Your task to perform on an android device: Clear the shopping cart on walmart.com. Search for bose soundlink on walmart.com, select the first entry, and add it to the cart. Image 0: 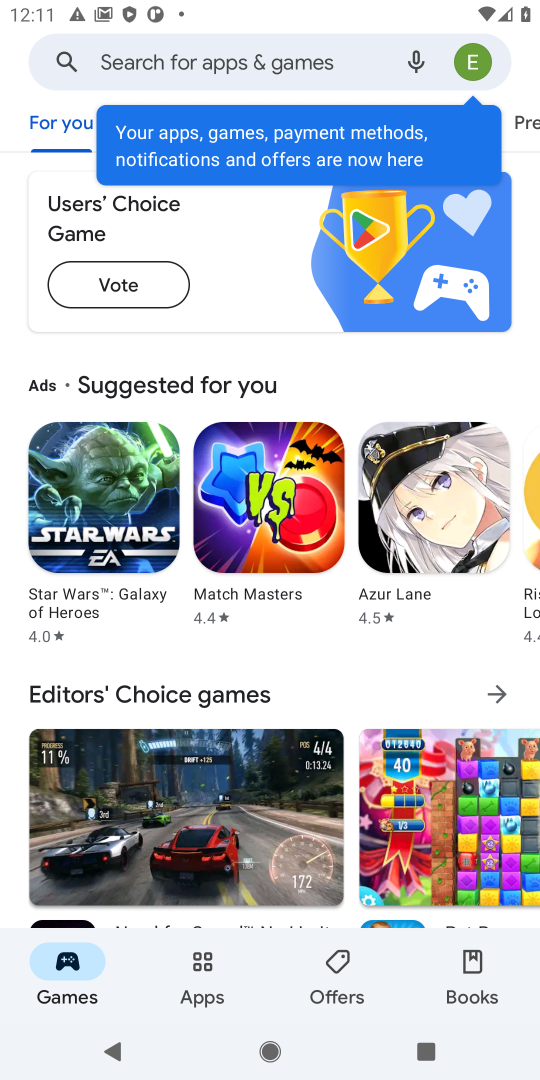
Step 0: press home button
Your task to perform on an android device: Clear the shopping cart on walmart.com. Search for bose soundlink on walmart.com, select the first entry, and add it to the cart. Image 1: 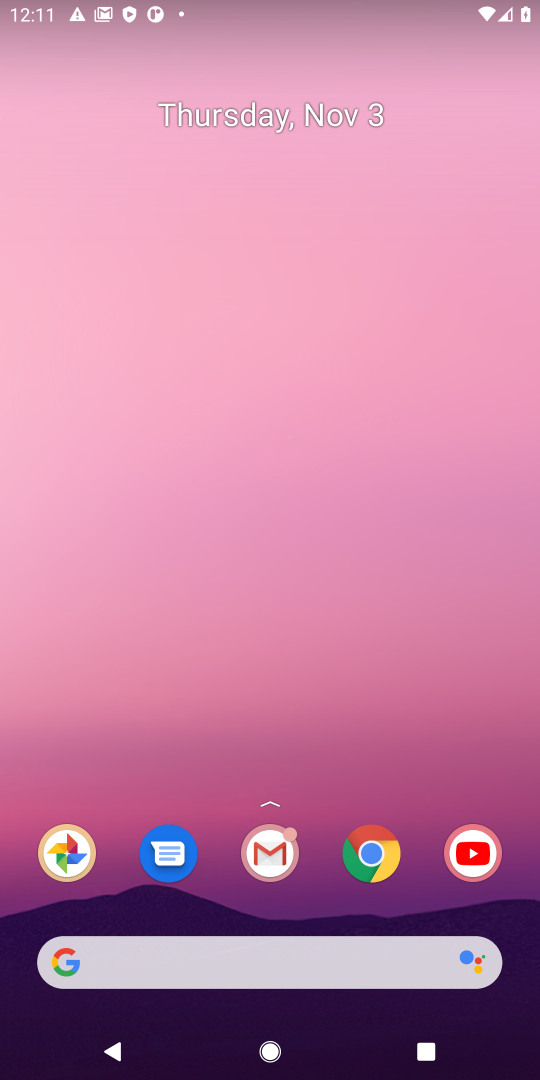
Step 1: click (365, 852)
Your task to perform on an android device: Clear the shopping cart on walmart.com. Search for bose soundlink on walmart.com, select the first entry, and add it to the cart. Image 2: 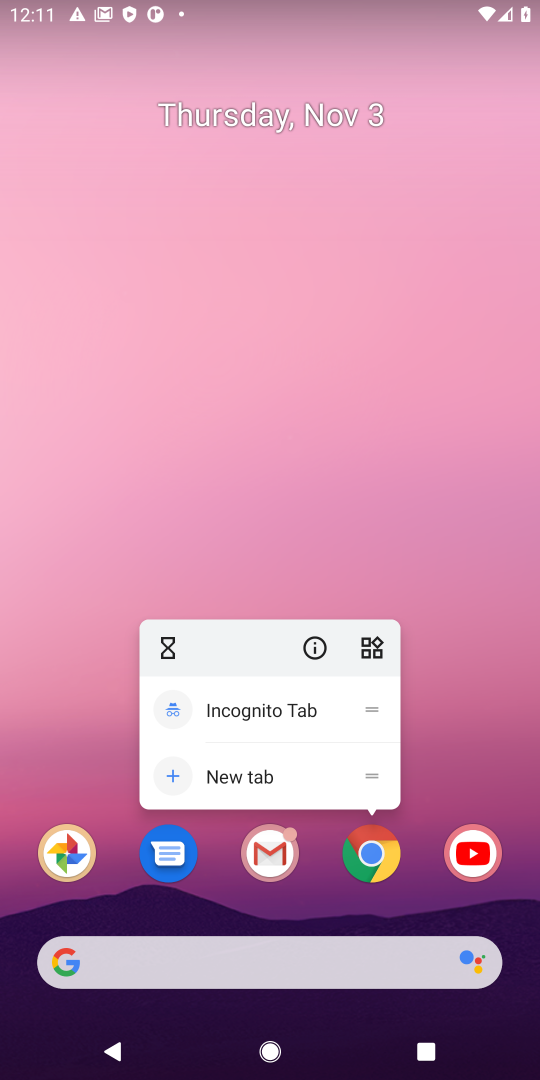
Step 2: click (368, 864)
Your task to perform on an android device: Clear the shopping cart on walmart.com. Search for bose soundlink on walmart.com, select the first entry, and add it to the cart. Image 3: 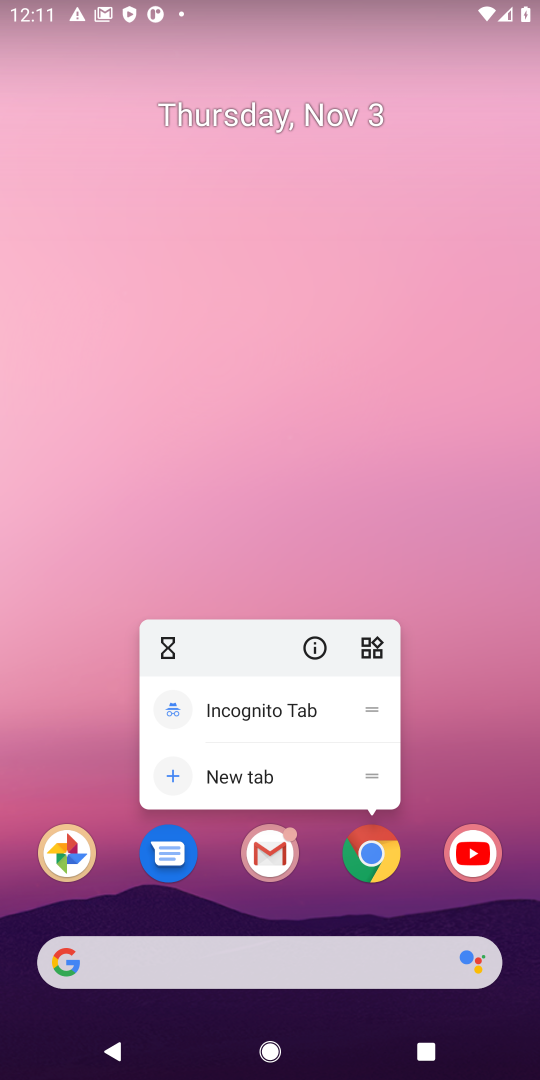
Step 3: click (375, 855)
Your task to perform on an android device: Clear the shopping cart on walmart.com. Search for bose soundlink on walmart.com, select the first entry, and add it to the cart. Image 4: 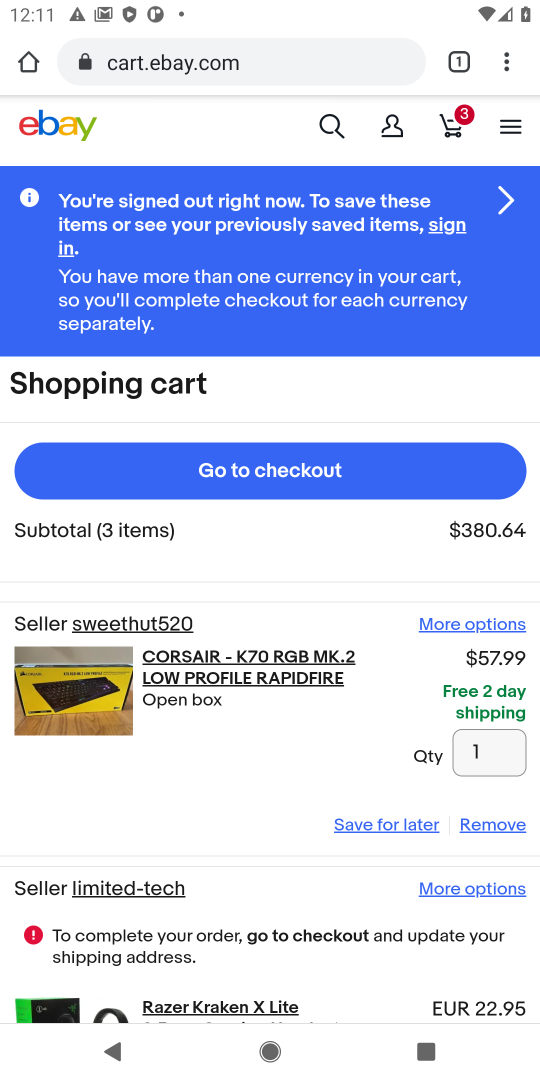
Step 4: click (227, 66)
Your task to perform on an android device: Clear the shopping cart on walmart.com. Search for bose soundlink on walmart.com, select the first entry, and add it to the cart. Image 5: 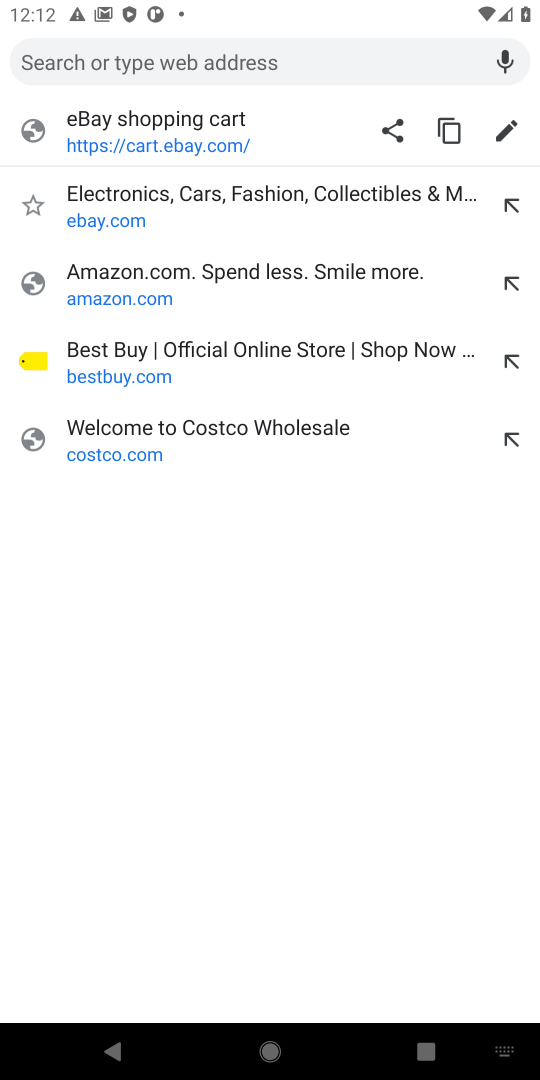
Step 5: type "walmart.com"
Your task to perform on an android device: Clear the shopping cart on walmart.com. Search for bose soundlink on walmart.com, select the first entry, and add it to the cart. Image 6: 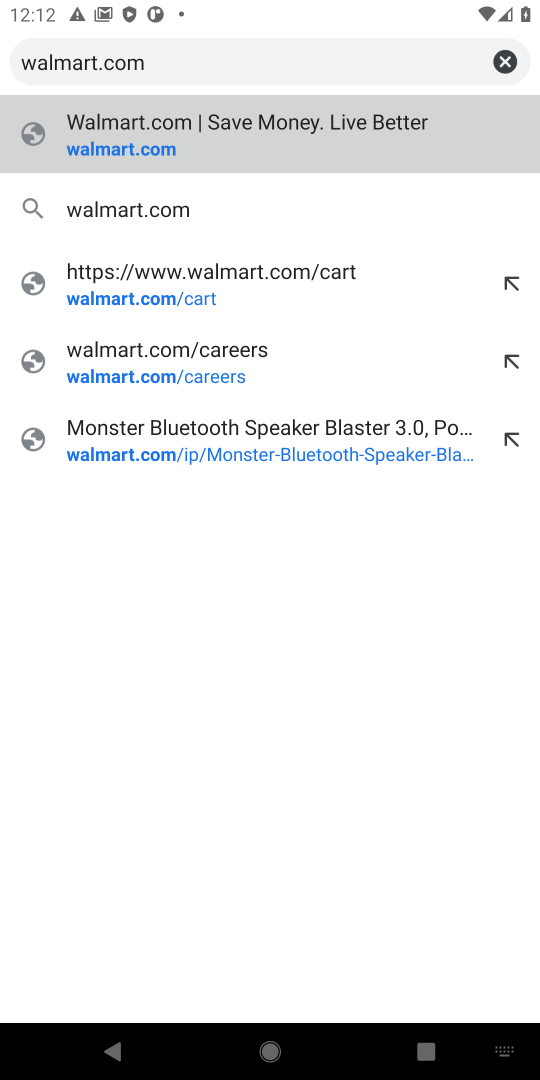
Step 6: press enter
Your task to perform on an android device: Clear the shopping cart on walmart.com. Search for bose soundlink on walmart.com, select the first entry, and add it to the cart. Image 7: 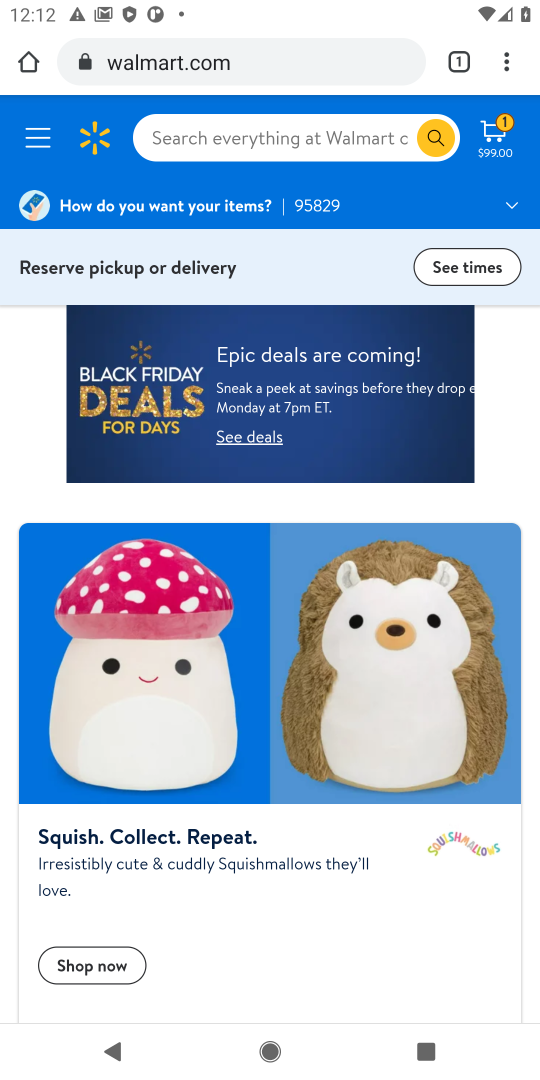
Step 7: click (235, 131)
Your task to perform on an android device: Clear the shopping cart on walmart.com. Search for bose soundlink on walmart.com, select the first entry, and add it to the cart. Image 8: 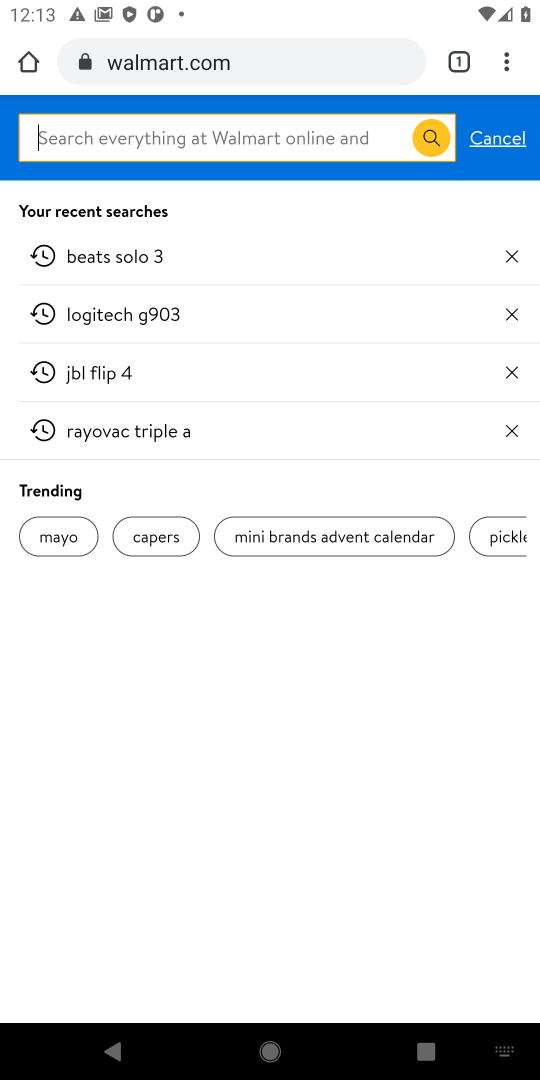
Step 8: type "bose soundlink "
Your task to perform on an android device: Clear the shopping cart on walmart.com. Search for bose soundlink on walmart.com, select the first entry, and add it to the cart. Image 9: 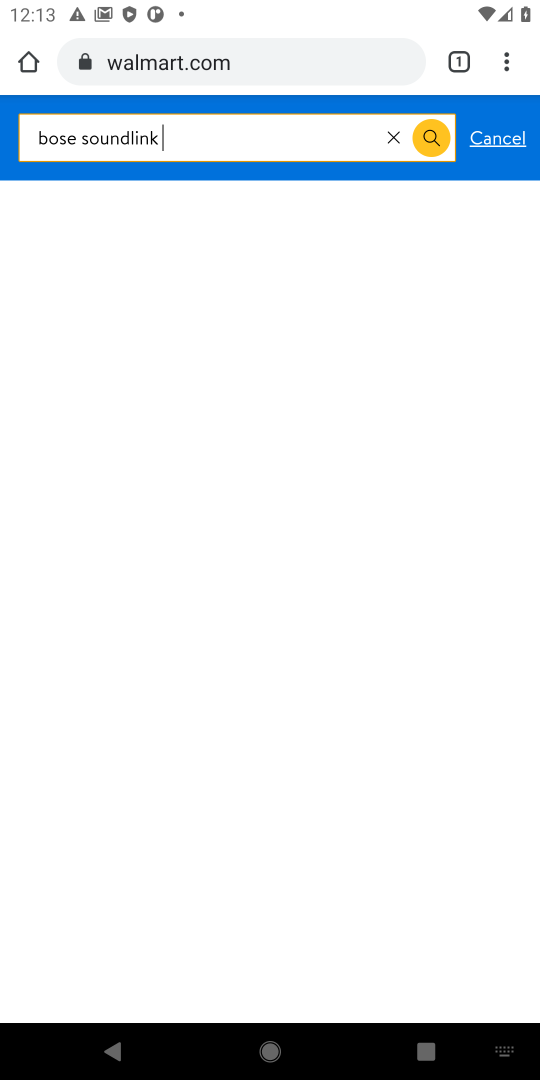
Step 9: press enter
Your task to perform on an android device: Clear the shopping cart on walmart.com. Search for bose soundlink on walmart.com, select the first entry, and add it to the cart. Image 10: 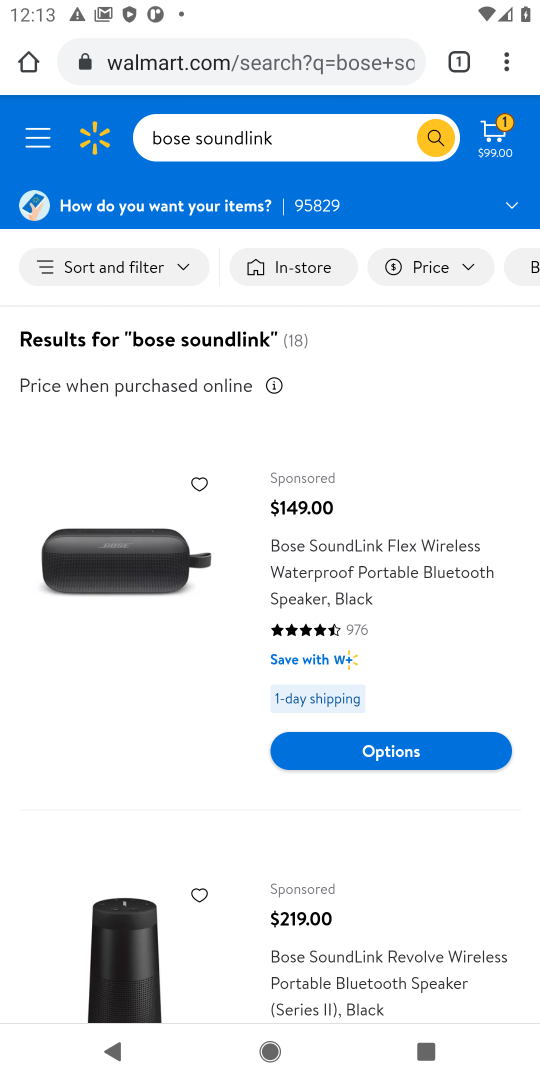
Step 10: click (311, 570)
Your task to perform on an android device: Clear the shopping cart on walmart.com. Search for bose soundlink on walmart.com, select the first entry, and add it to the cart. Image 11: 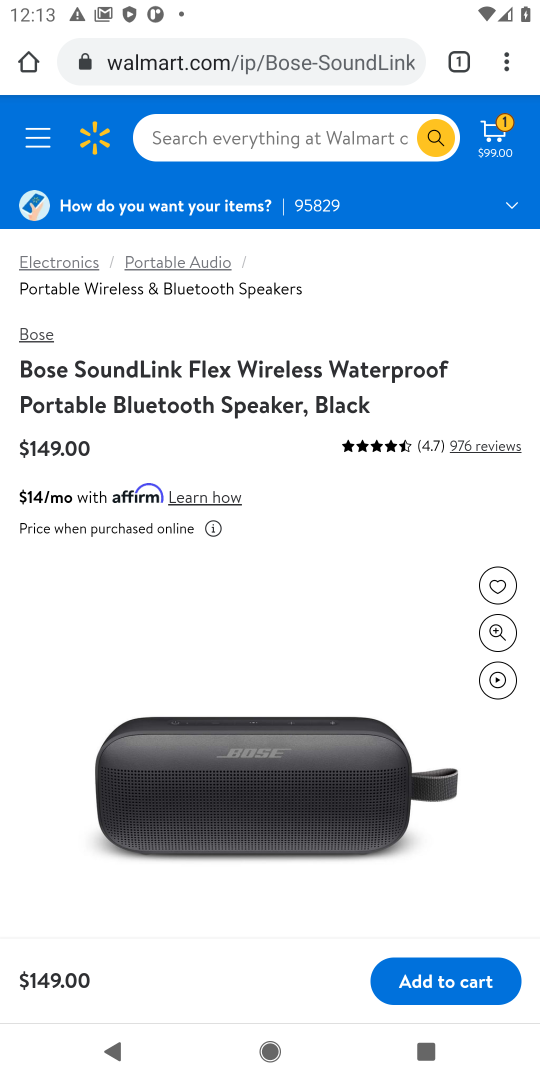
Step 11: drag from (369, 825) to (537, 410)
Your task to perform on an android device: Clear the shopping cart on walmart.com. Search for bose soundlink on walmart.com, select the first entry, and add it to the cart. Image 12: 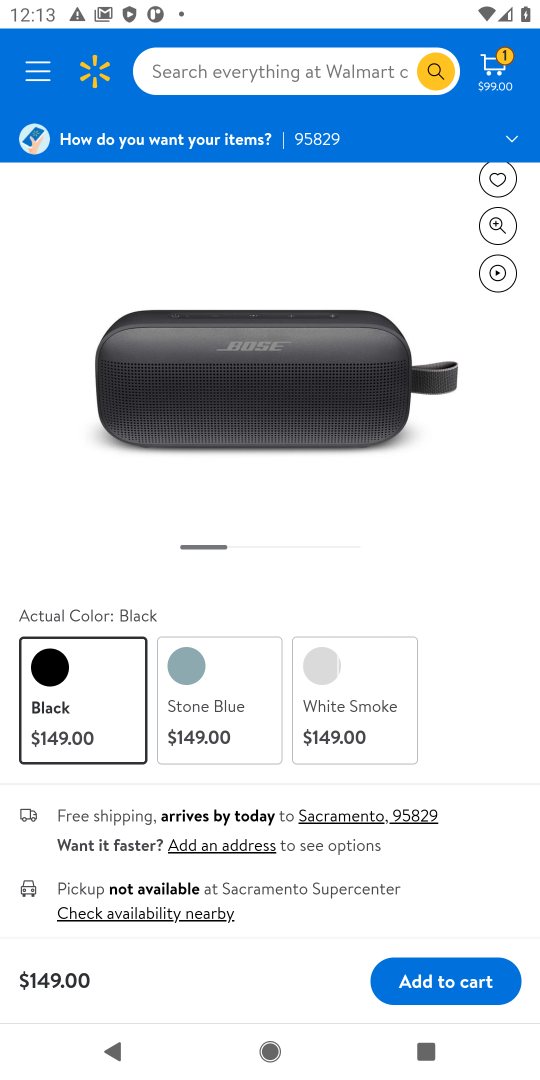
Step 12: drag from (453, 762) to (535, 439)
Your task to perform on an android device: Clear the shopping cart on walmart.com. Search for bose soundlink on walmart.com, select the first entry, and add it to the cart. Image 13: 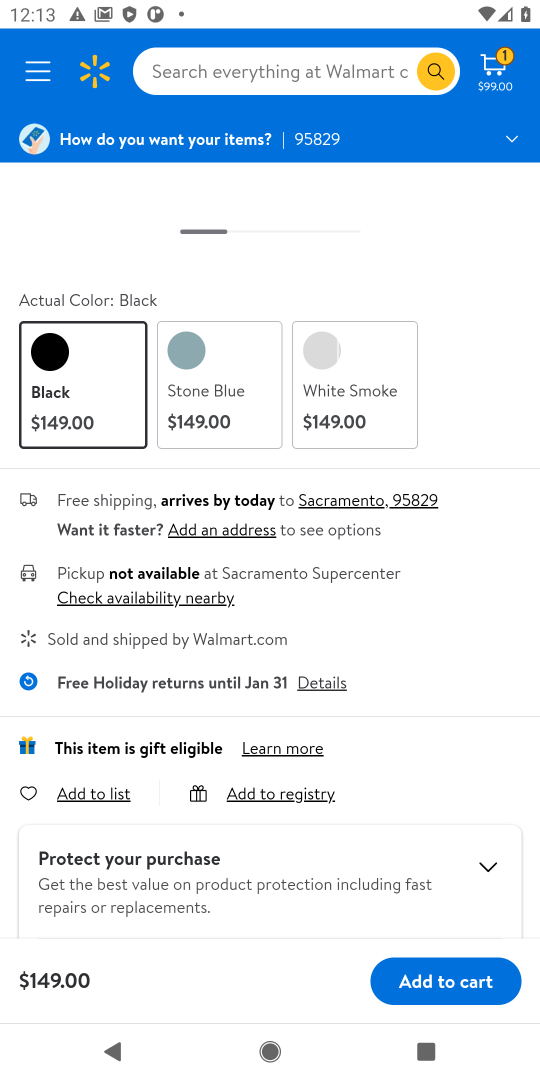
Step 13: click (474, 978)
Your task to perform on an android device: Clear the shopping cart on walmart.com. Search for bose soundlink on walmart.com, select the first entry, and add it to the cart. Image 14: 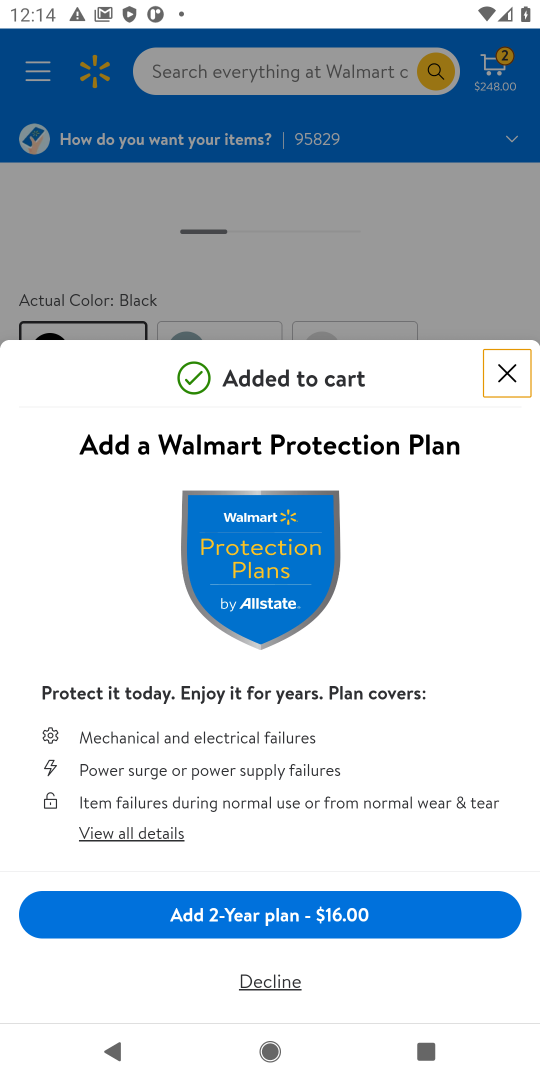
Step 14: click (511, 369)
Your task to perform on an android device: Clear the shopping cart on walmart.com. Search for bose soundlink on walmart.com, select the first entry, and add it to the cart. Image 15: 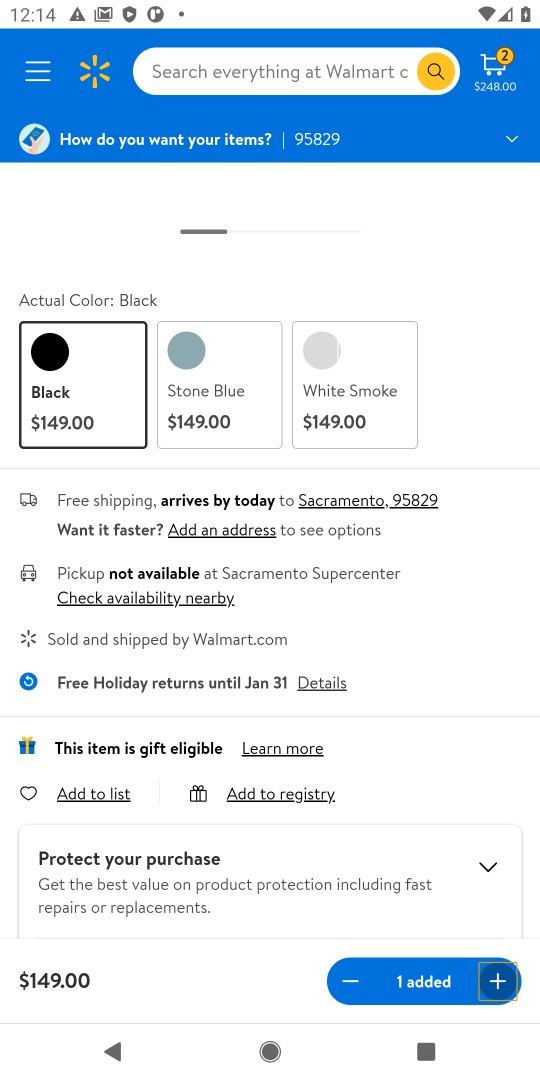
Step 15: click (500, 56)
Your task to perform on an android device: Clear the shopping cart on walmart.com. Search for bose soundlink on walmart.com, select the first entry, and add it to the cart. Image 16: 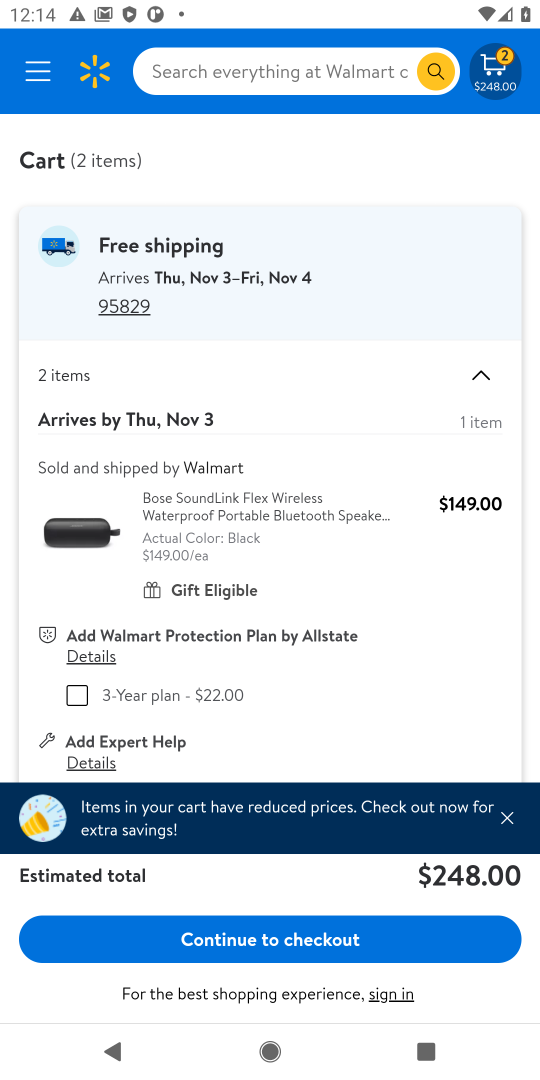
Step 16: task complete